Your task to perform on an android device: toggle sleep mode Image 0: 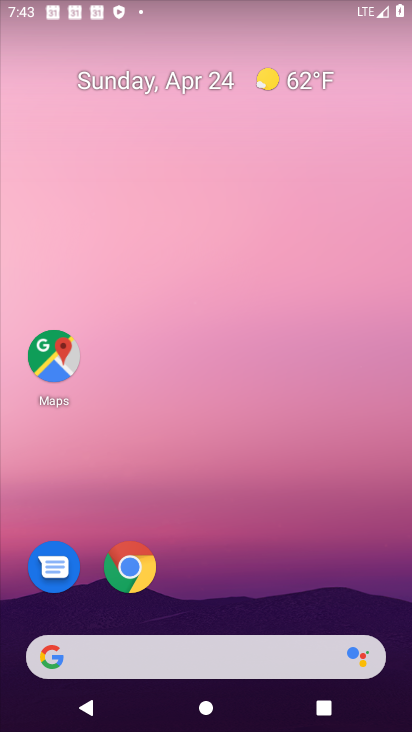
Step 0: drag from (213, 575) to (243, 121)
Your task to perform on an android device: toggle sleep mode Image 1: 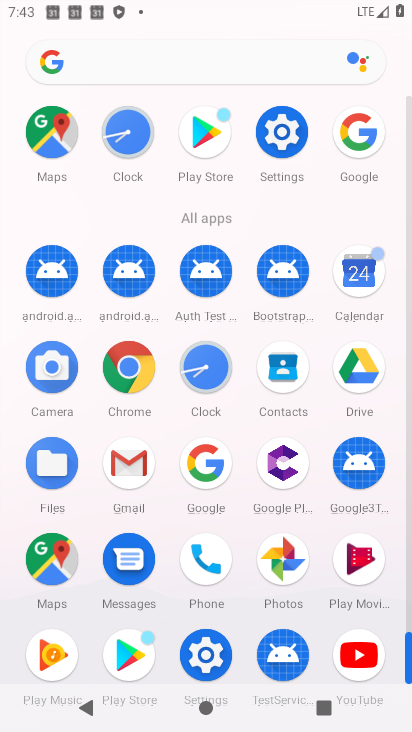
Step 1: click (280, 130)
Your task to perform on an android device: toggle sleep mode Image 2: 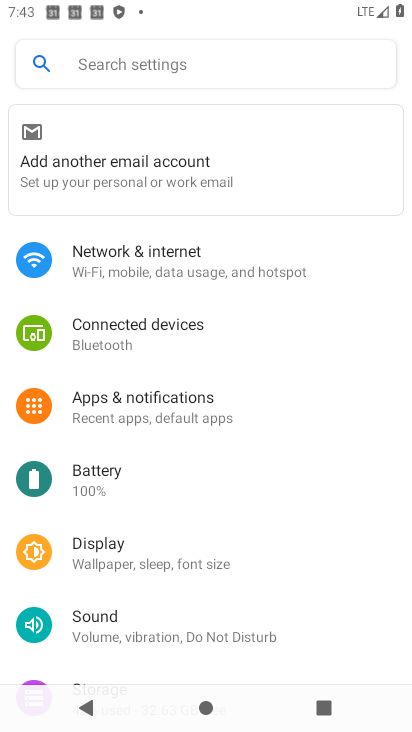
Step 2: click (182, 568)
Your task to perform on an android device: toggle sleep mode Image 3: 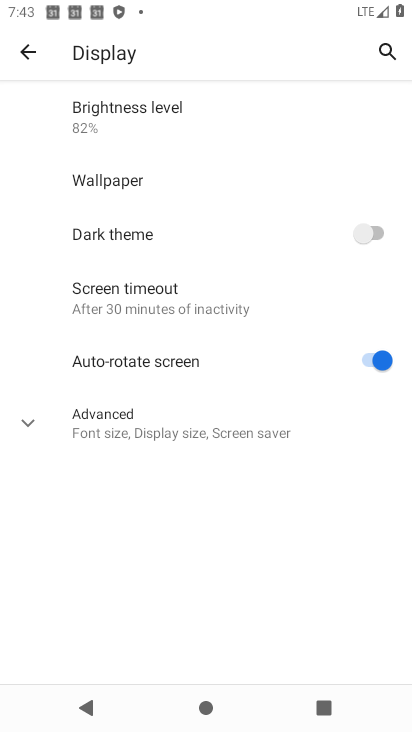
Step 3: click (179, 313)
Your task to perform on an android device: toggle sleep mode Image 4: 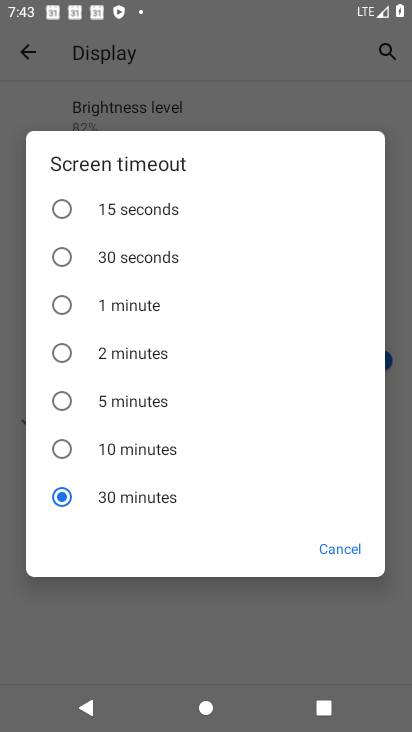
Step 4: task complete